Your task to perform on an android device: What's the news in French Guiana? Image 0: 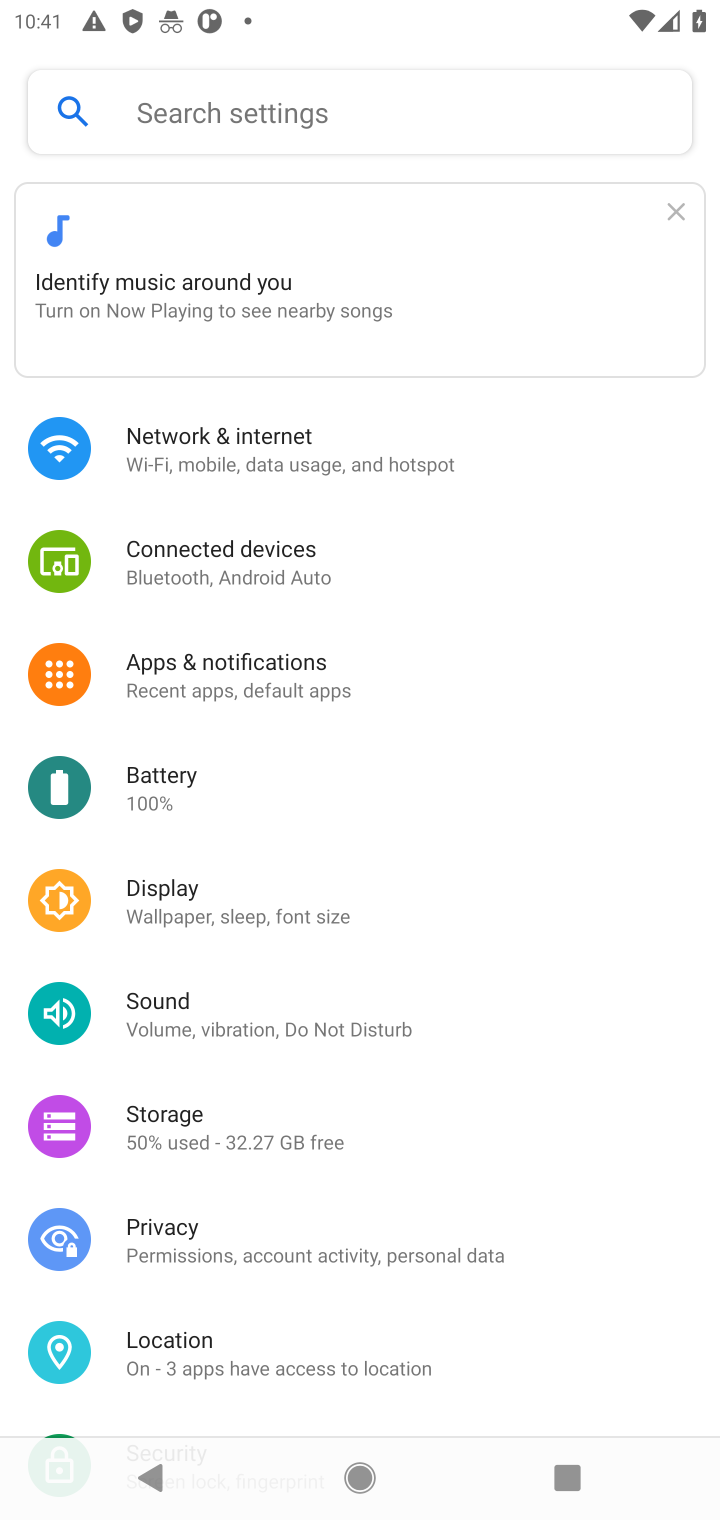
Step 0: press home button
Your task to perform on an android device: What's the news in French Guiana? Image 1: 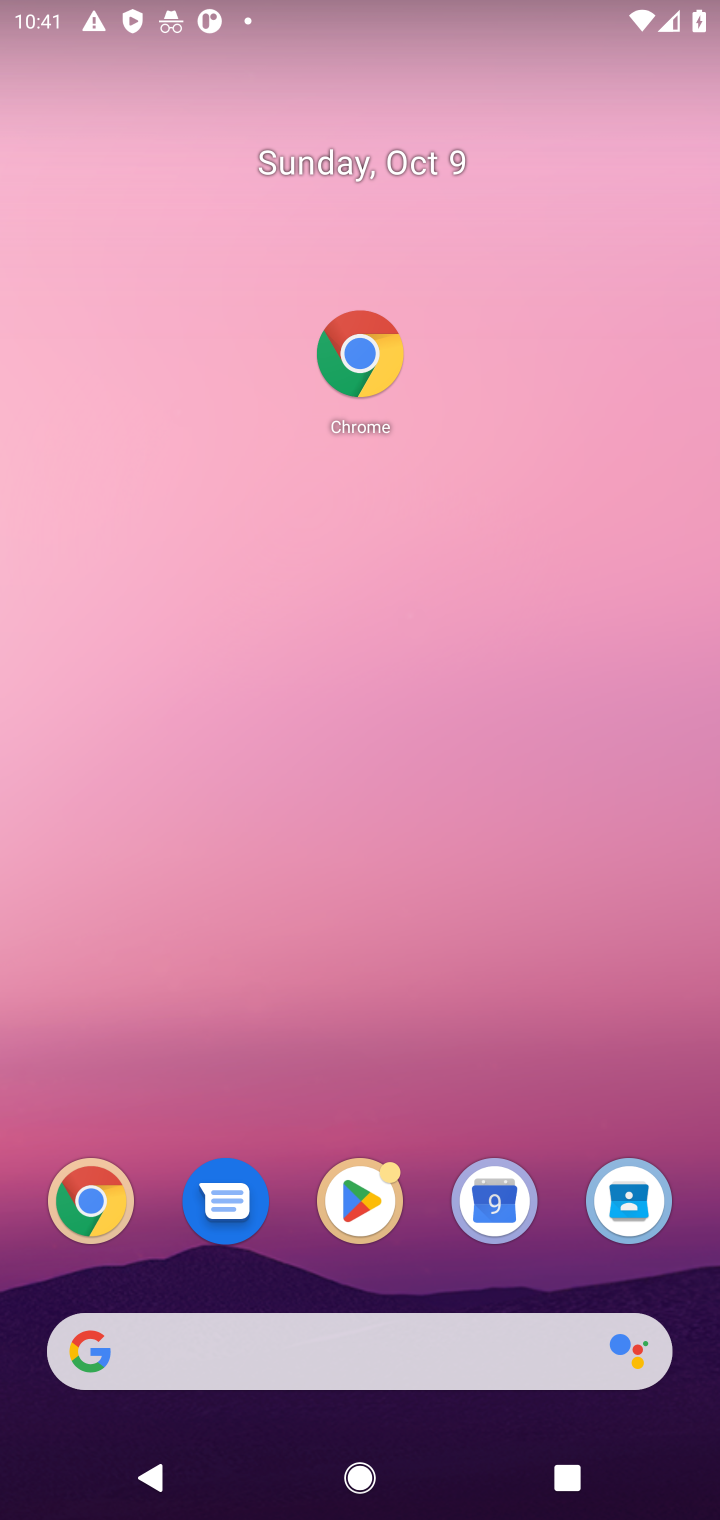
Step 1: click (342, 344)
Your task to perform on an android device: What's the news in French Guiana? Image 2: 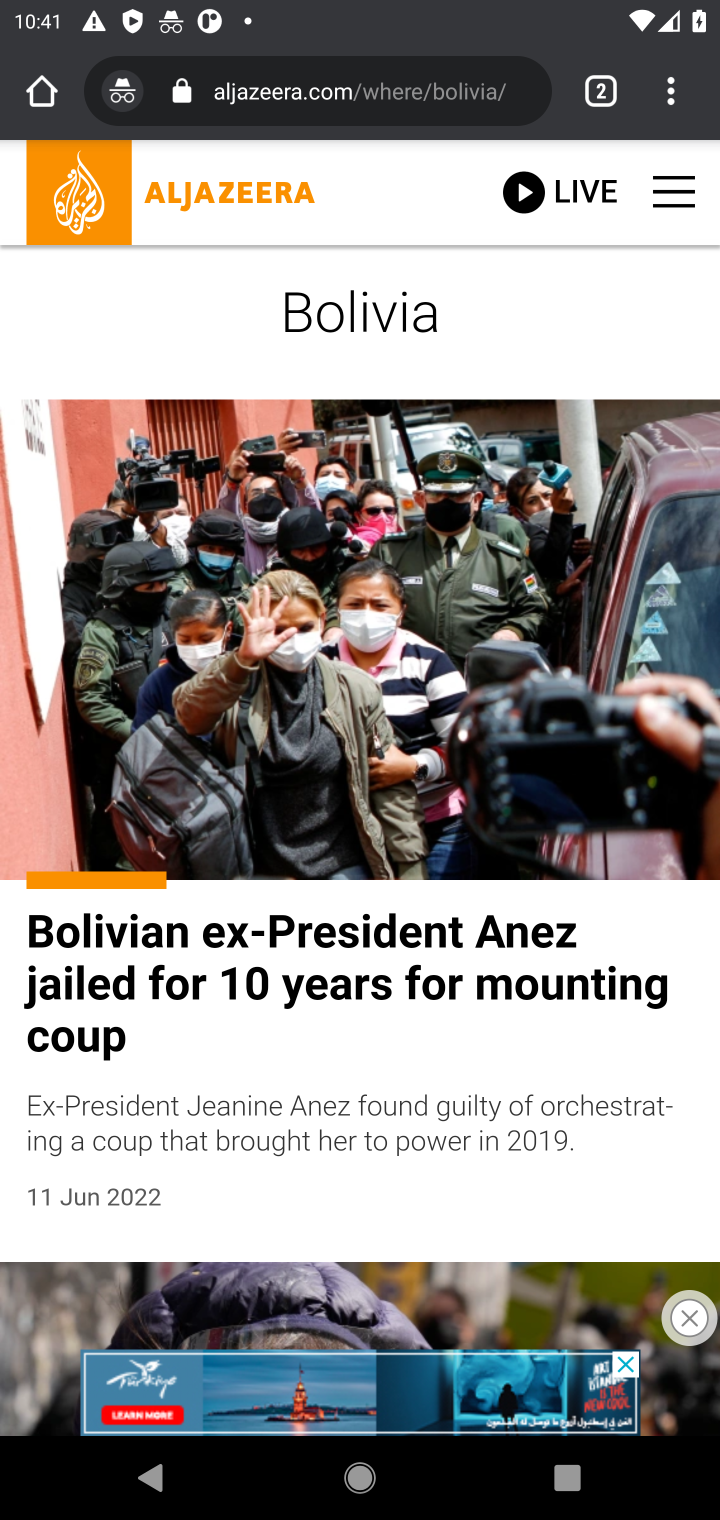
Step 2: click (335, 92)
Your task to perform on an android device: What's the news in French Guiana? Image 3: 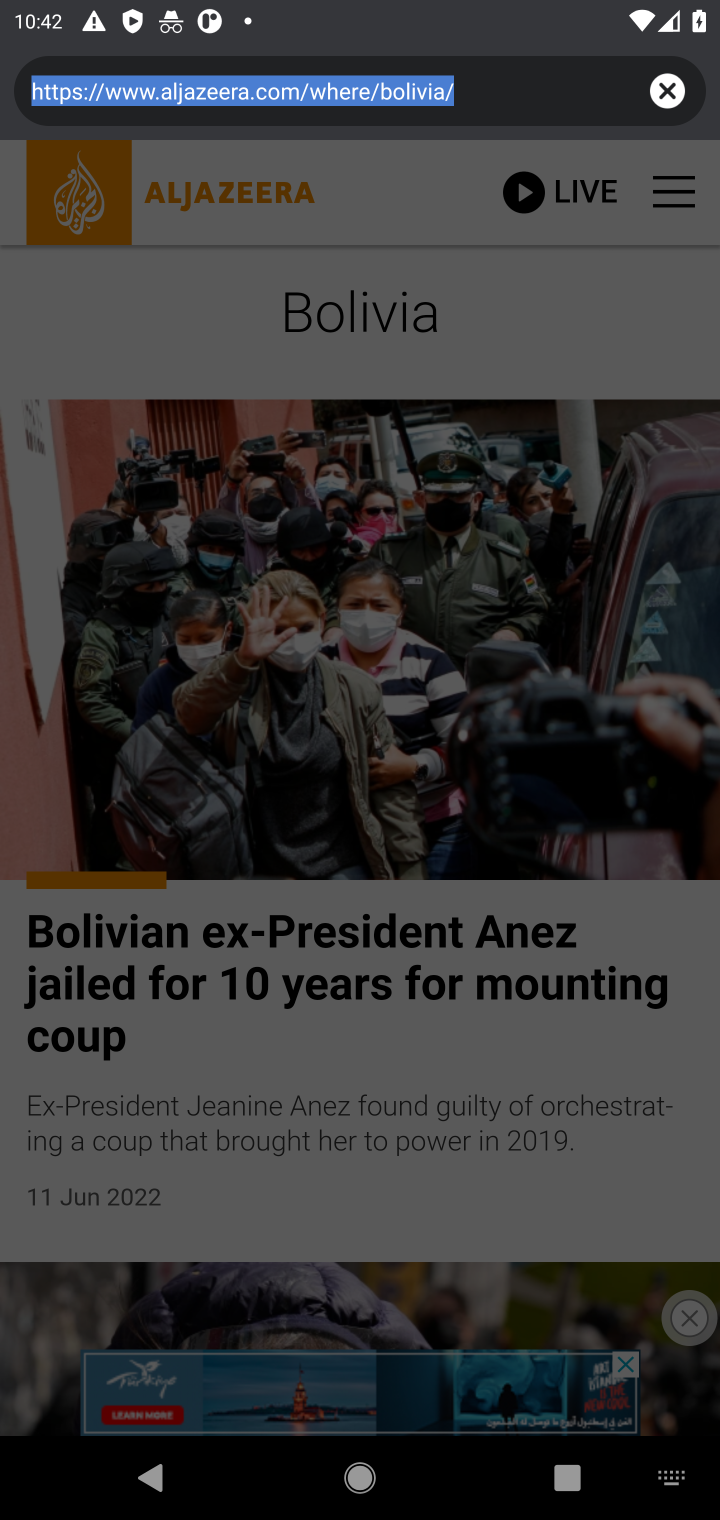
Step 3: type "What's the news in French Guiana?"
Your task to perform on an android device: What's the news in French Guiana? Image 4: 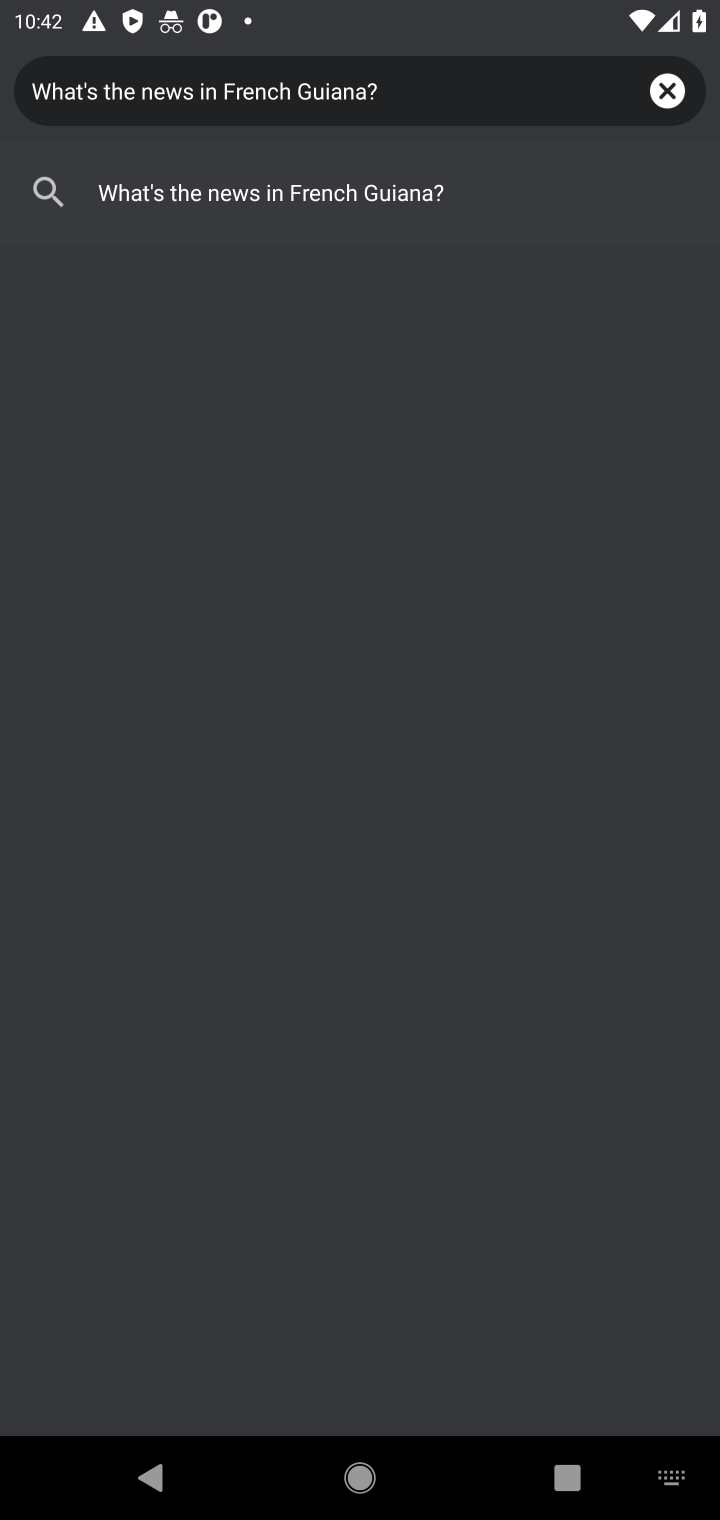
Step 4: click (484, 98)
Your task to perform on an android device: What's the news in French Guiana? Image 5: 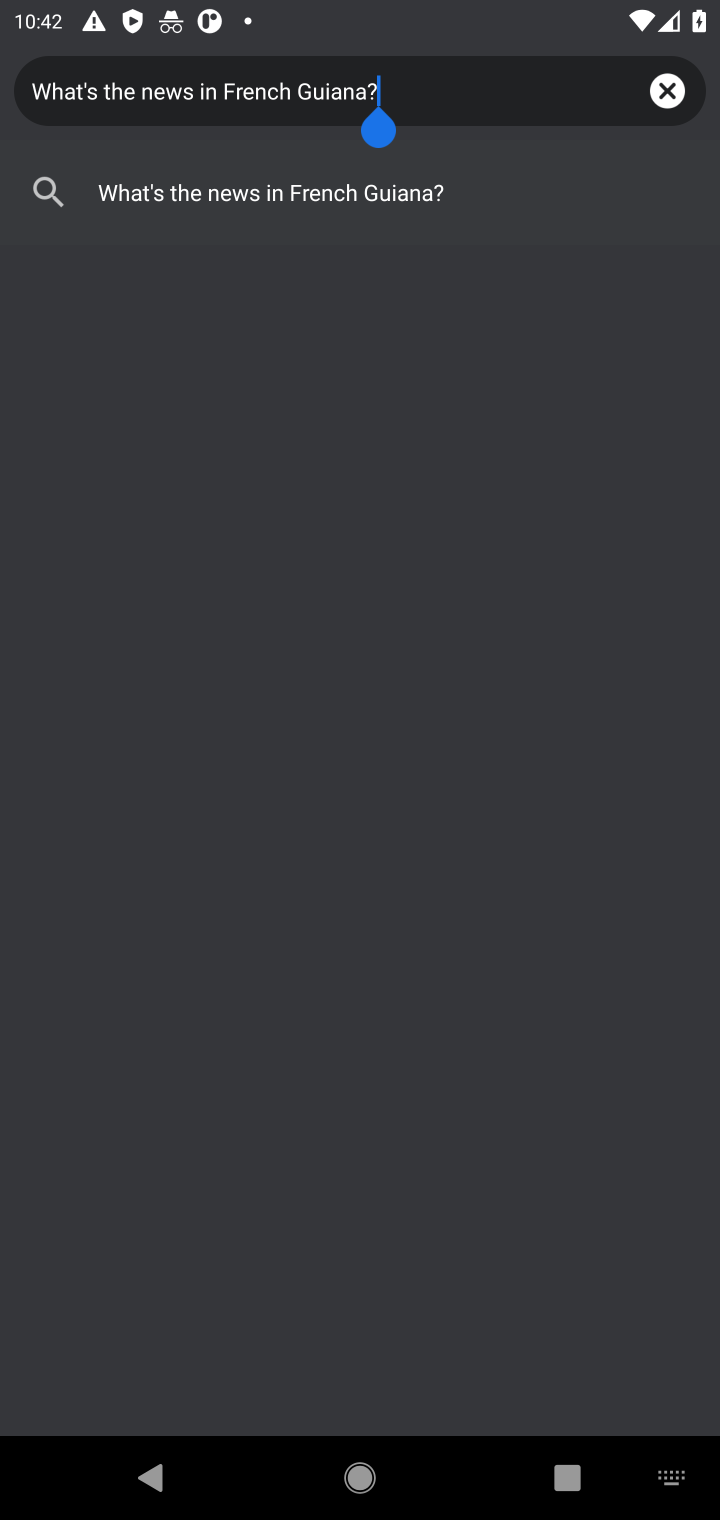
Step 5: click (198, 191)
Your task to perform on an android device: What's the news in French Guiana? Image 6: 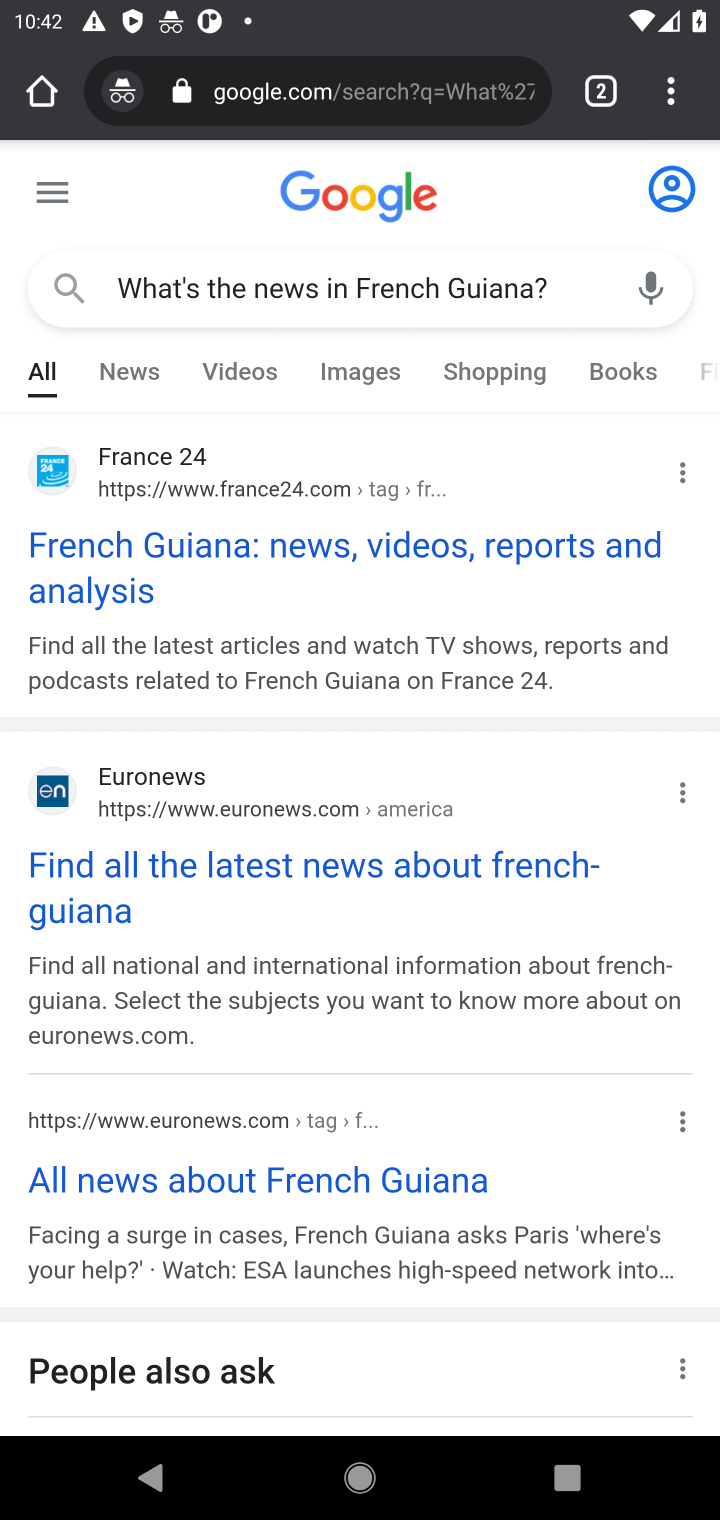
Step 6: click (338, 584)
Your task to perform on an android device: What's the news in French Guiana? Image 7: 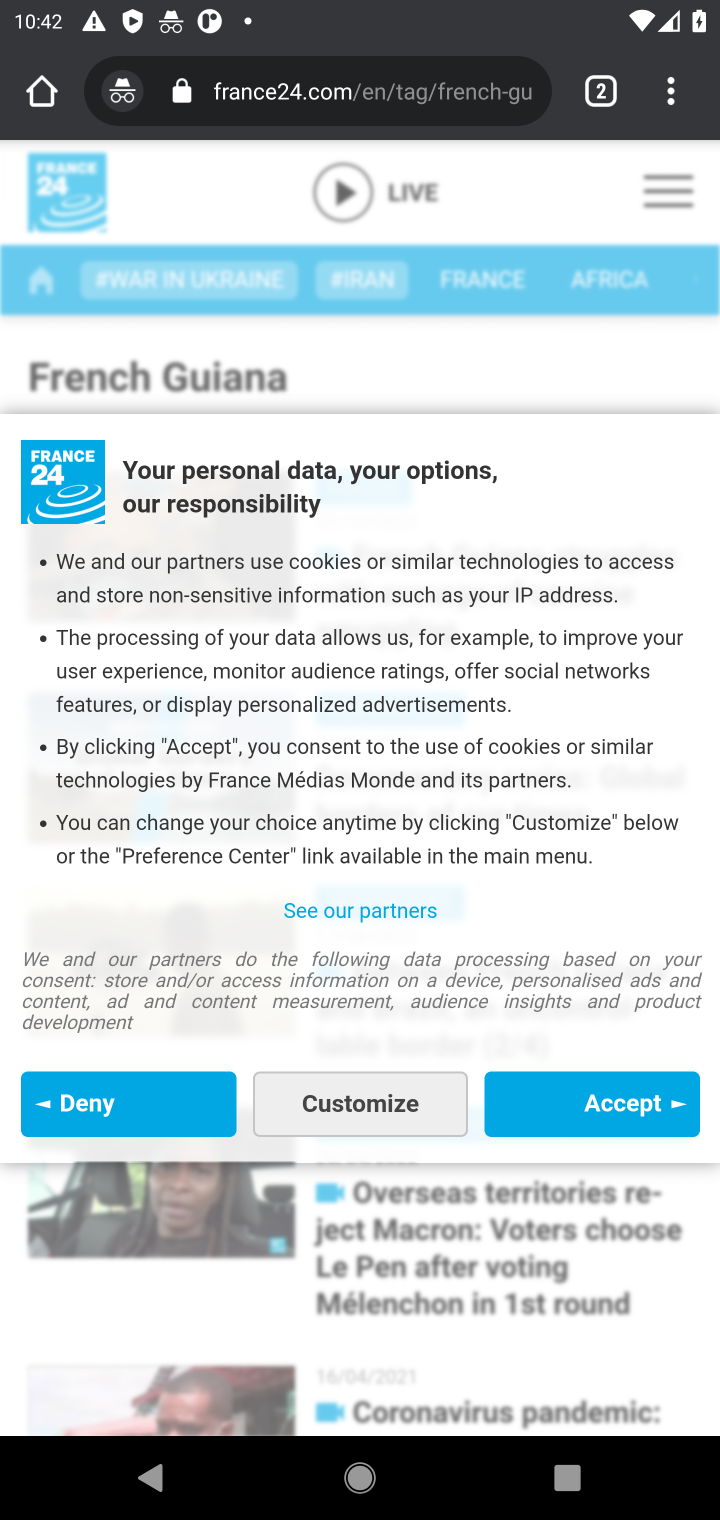
Step 7: task complete